Your task to perform on an android device: check android version Image 0: 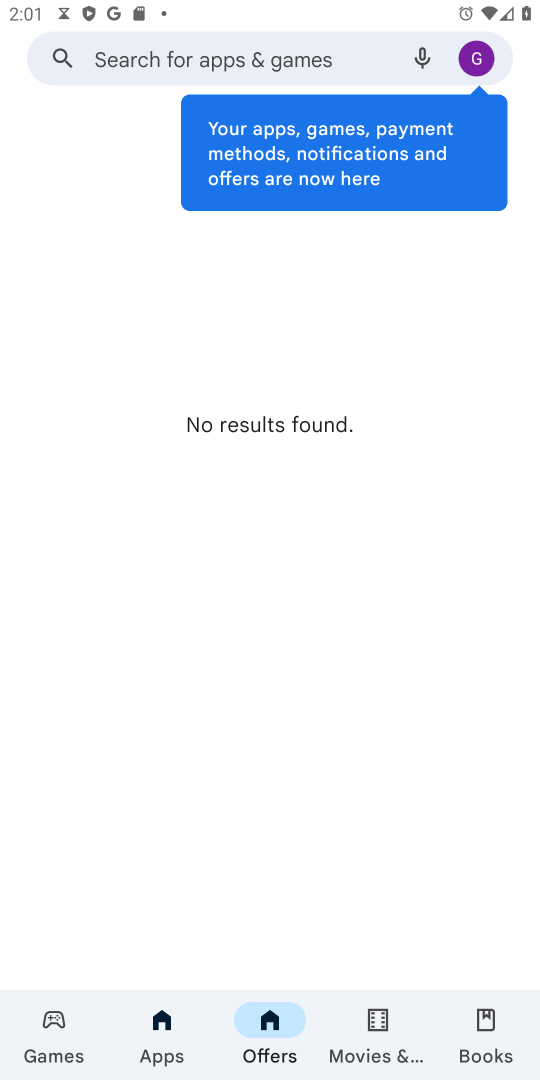
Step 0: press home button
Your task to perform on an android device: check android version Image 1: 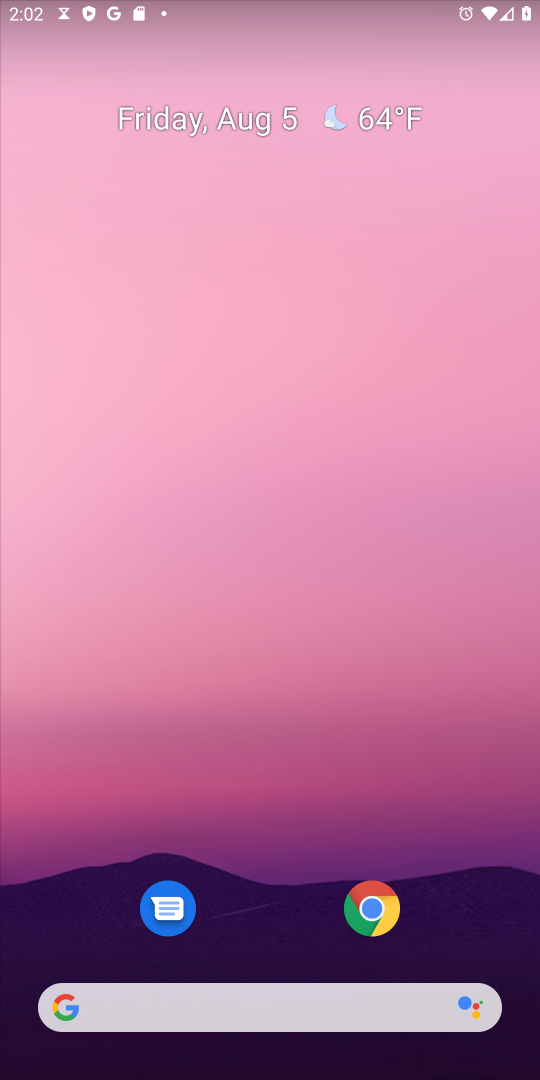
Step 1: drag from (245, 990) to (425, 175)
Your task to perform on an android device: check android version Image 2: 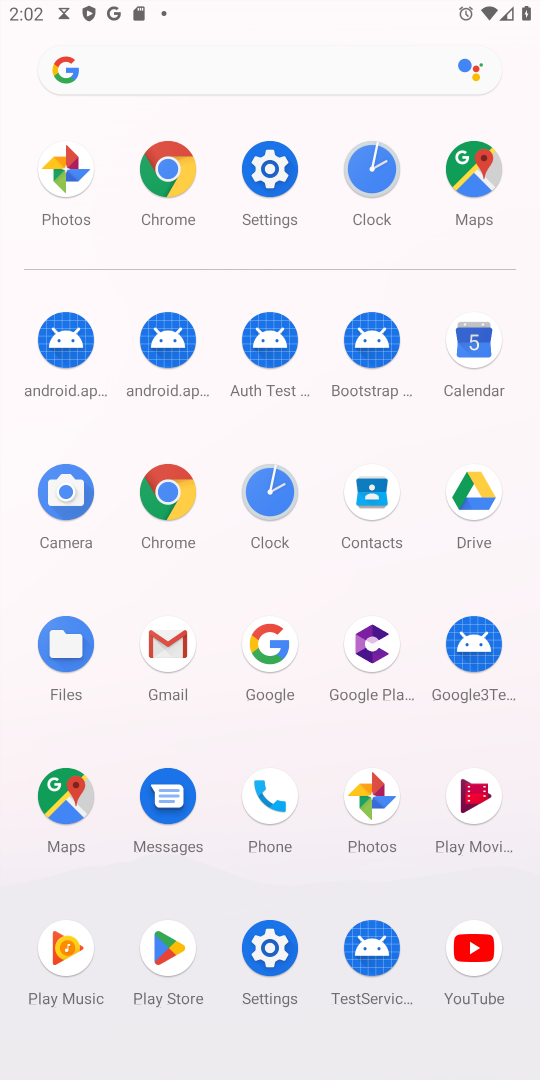
Step 2: click (269, 953)
Your task to perform on an android device: check android version Image 3: 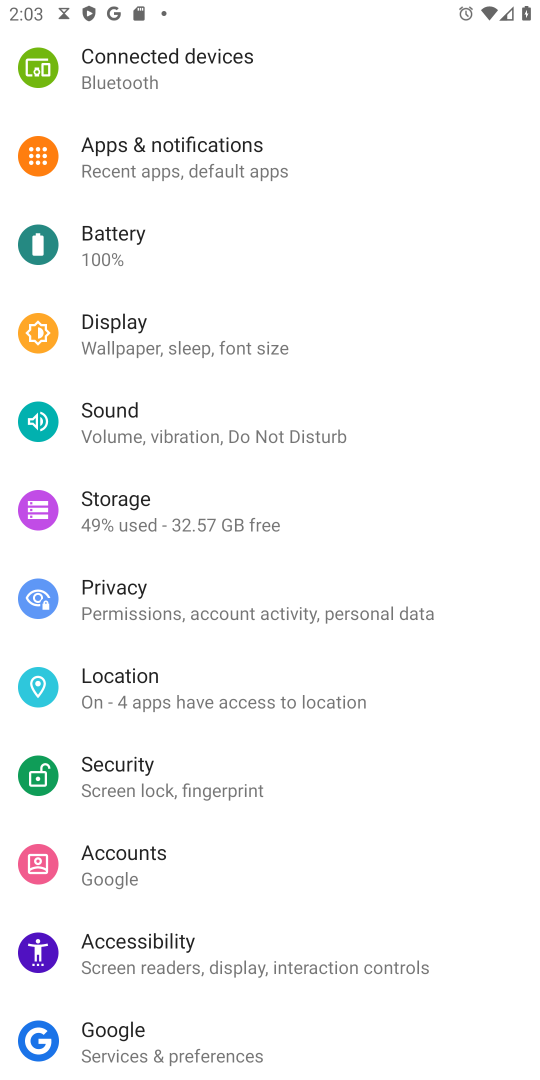
Step 3: drag from (110, 886) to (216, 131)
Your task to perform on an android device: check android version Image 4: 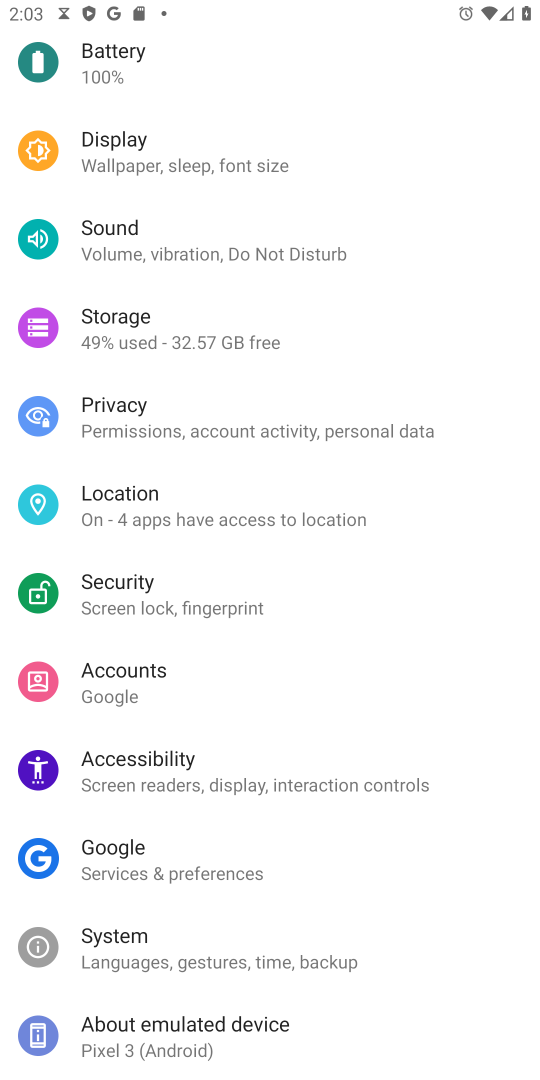
Step 4: click (96, 1018)
Your task to perform on an android device: check android version Image 5: 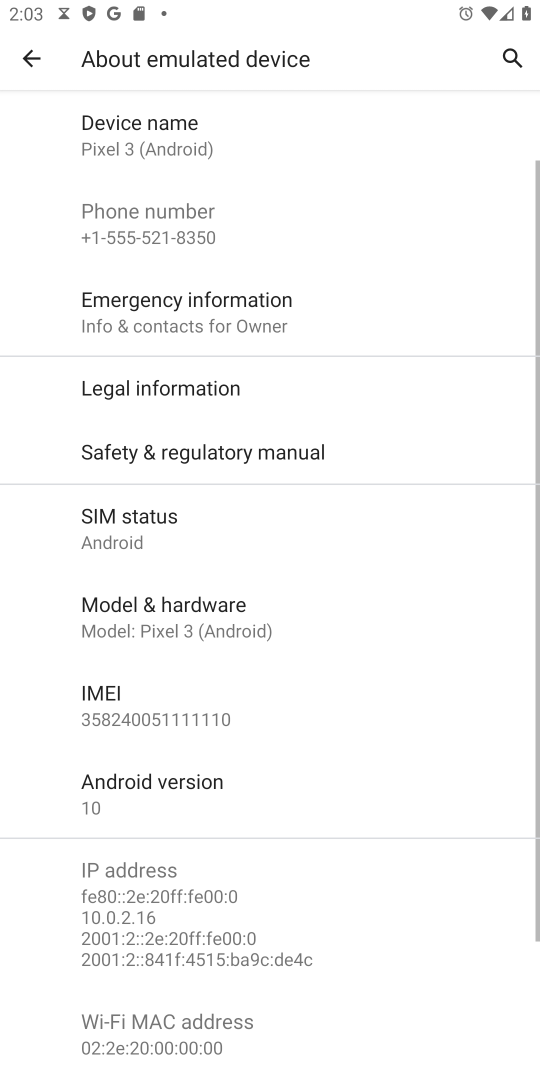
Step 5: click (158, 767)
Your task to perform on an android device: check android version Image 6: 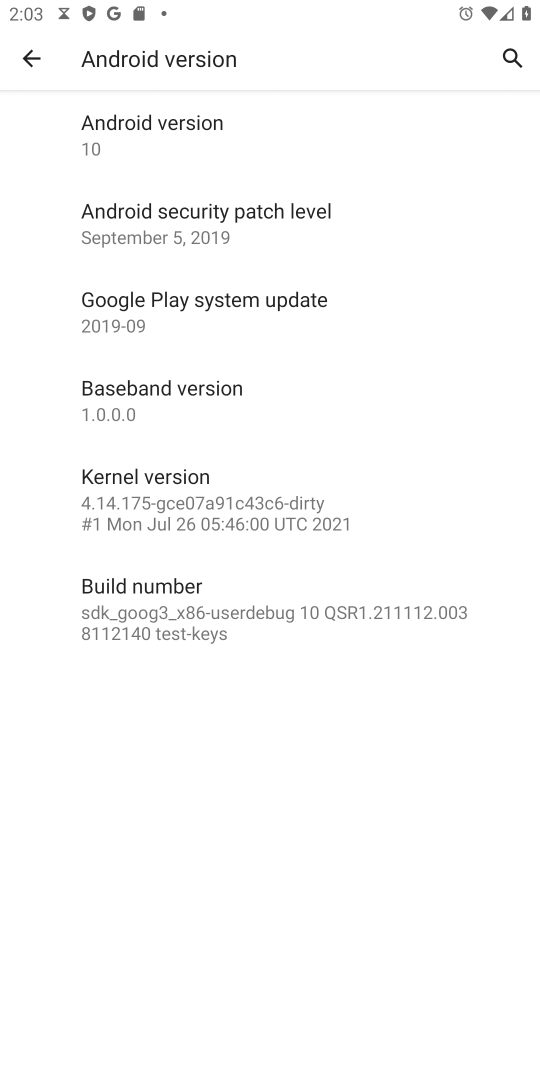
Step 6: task complete